Your task to perform on an android device: turn on wifi Image 0: 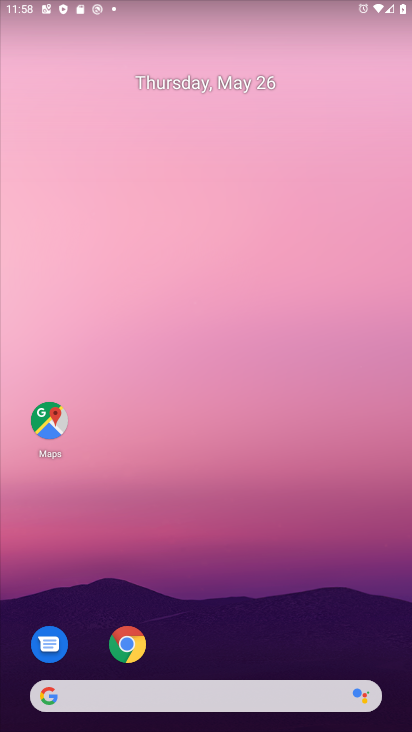
Step 0: drag from (218, 642) to (226, 190)
Your task to perform on an android device: turn on wifi Image 1: 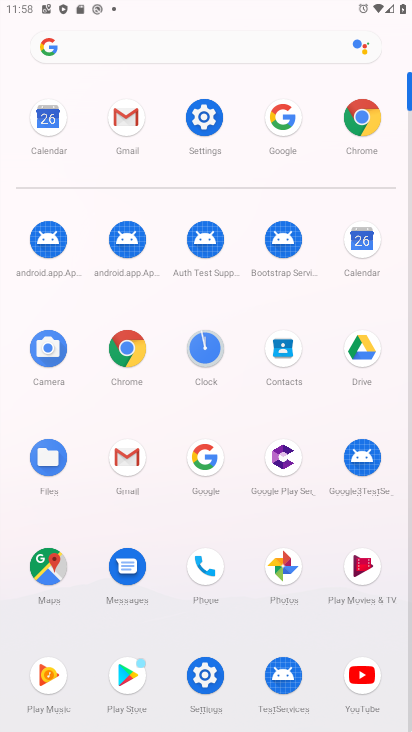
Step 1: click (188, 116)
Your task to perform on an android device: turn on wifi Image 2: 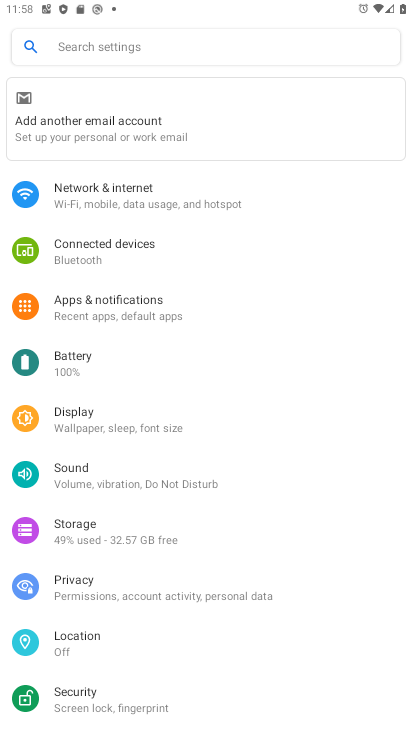
Step 2: click (155, 198)
Your task to perform on an android device: turn on wifi Image 3: 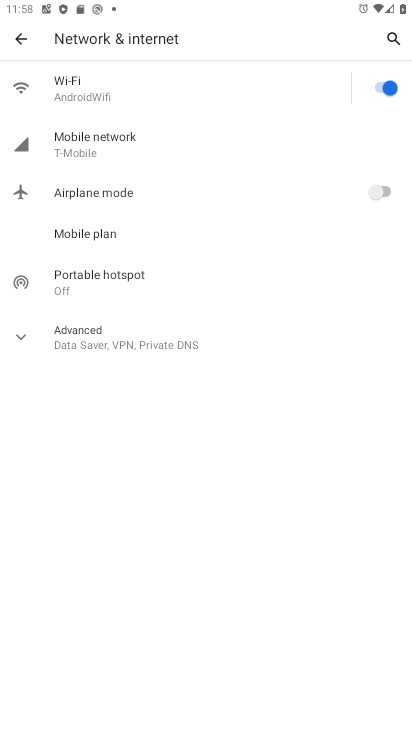
Step 3: task complete